Your task to perform on an android device: Open network settings Image 0: 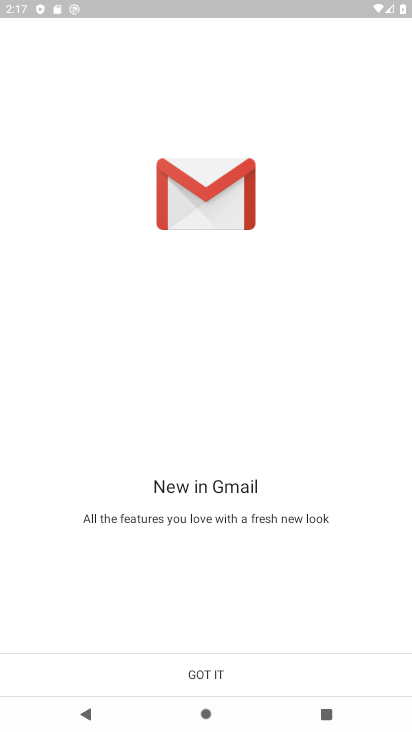
Step 0: click (194, 673)
Your task to perform on an android device: Open network settings Image 1: 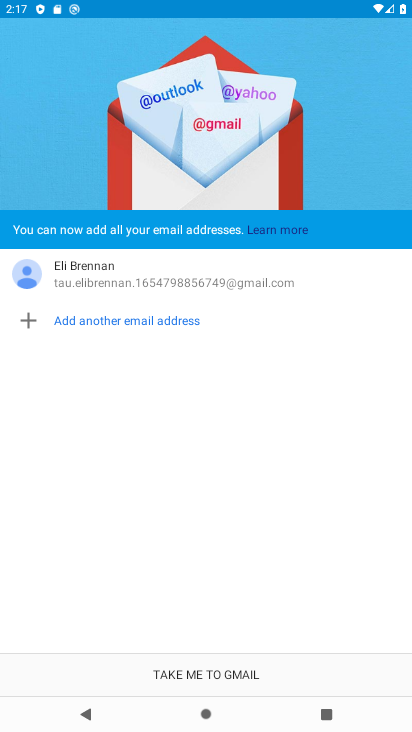
Step 1: click (234, 673)
Your task to perform on an android device: Open network settings Image 2: 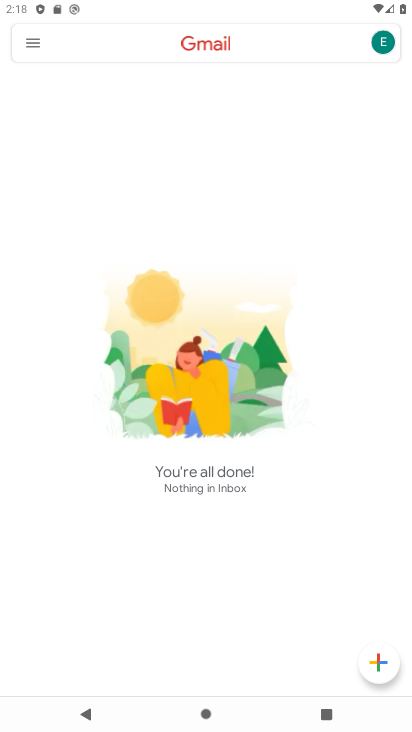
Step 2: press home button
Your task to perform on an android device: Open network settings Image 3: 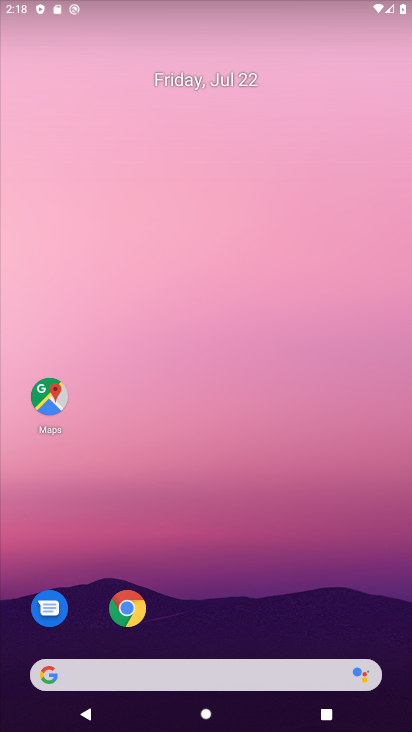
Step 3: drag from (180, 661) to (178, 82)
Your task to perform on an android device: Open network settings Image 4: 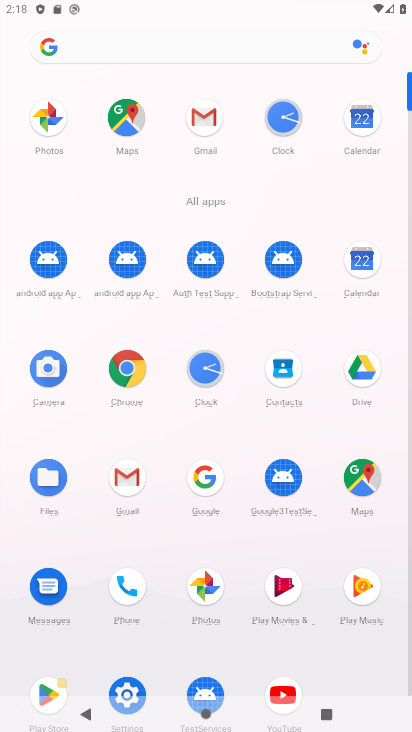
Step 4: click (132, 690)
Your task to perform on an android device: Open network settings Image 5: 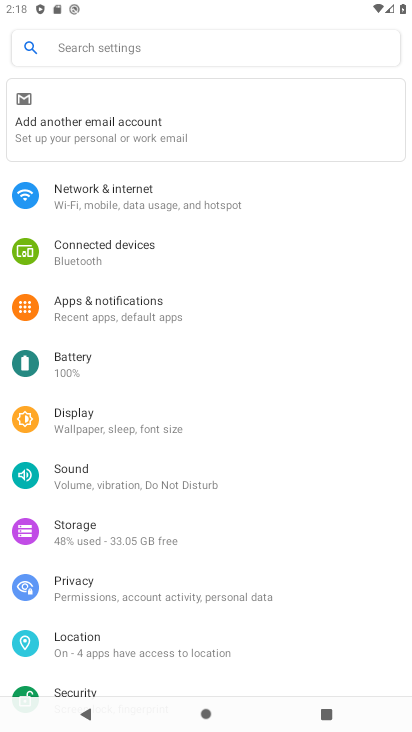
Step 5: click (161, 195)
Your task to perform on an android device: Open network settings Image 6: 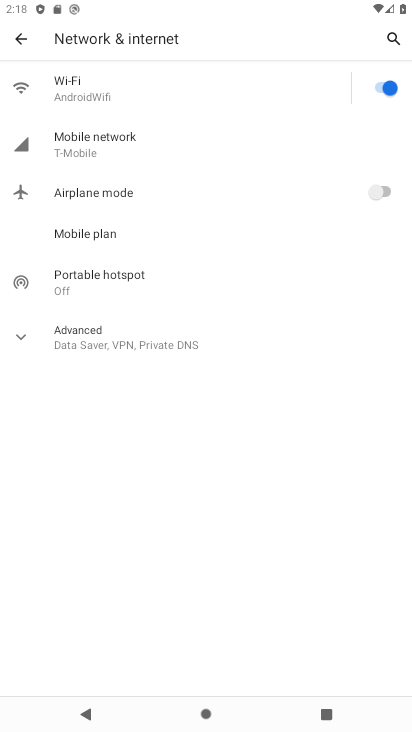
Step 6: click (94, 348)
Your task to perform on an android device: Open network settings Image 7: 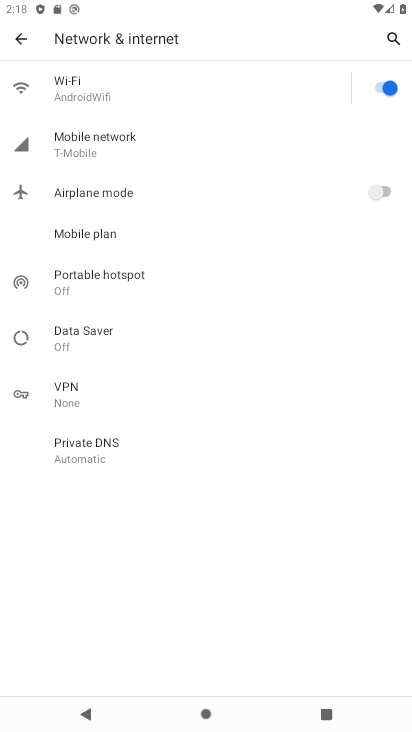
Step 7: task complete